Your task to perform on an android device: Go to wifi settings Image 0: 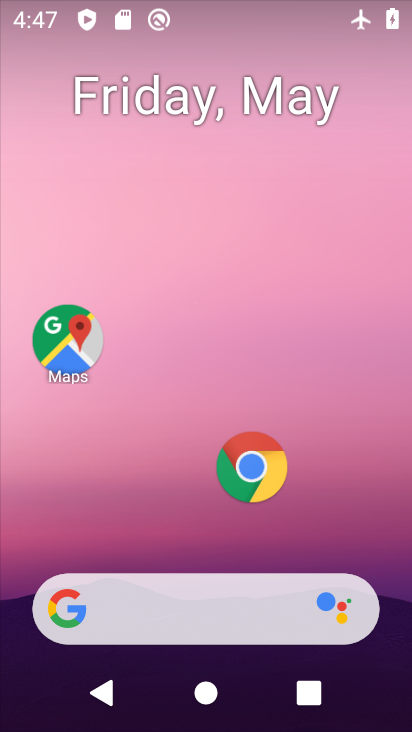
Step 0: drag from (284, 486) to (233, 195)
Your task to perform on an android device: Go to wifi settings Image 1: 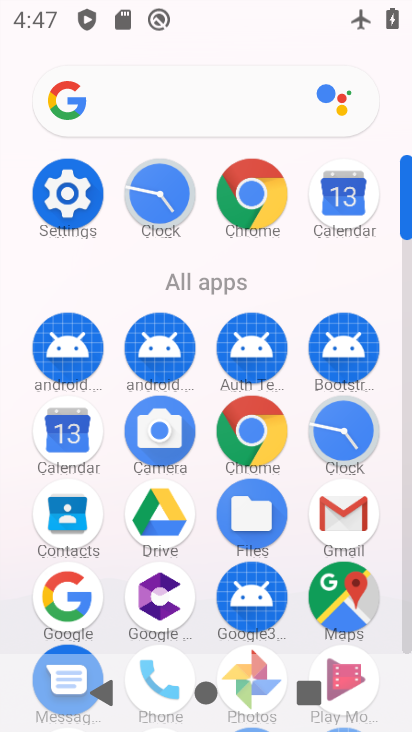
Step 1: click (62, 196)
Your task to perform on an android device: Go to wifi settings Image 2: 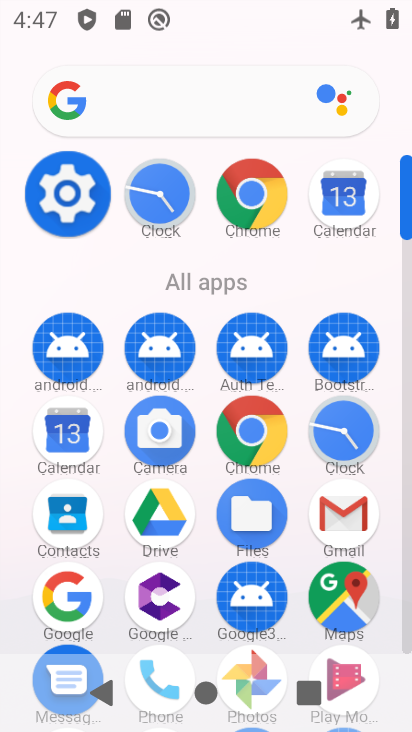
Step 2: click (70, 189)
Your task to perform on an android device: Go to wifi settings Image 3: 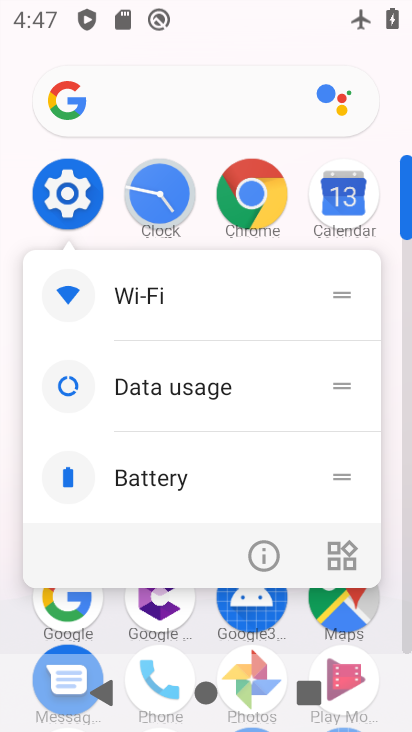
Step 3: click (73, 188)
Your task to perform on an android device: Go to wifi settings Image 4: 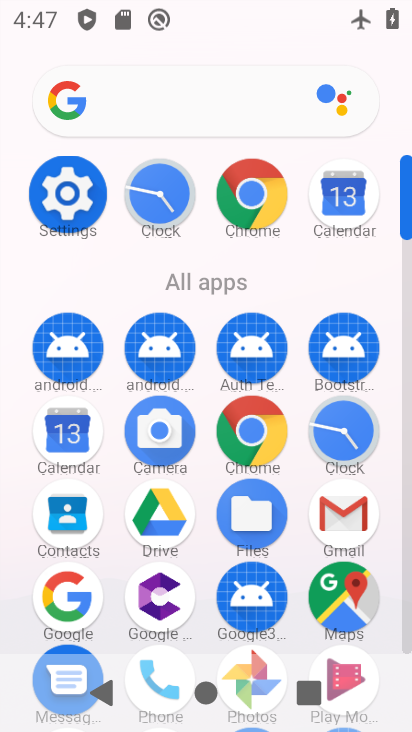
Step 4: click (77, 186)
Your task to perform on an android device: Go to wifi settings Image 5: 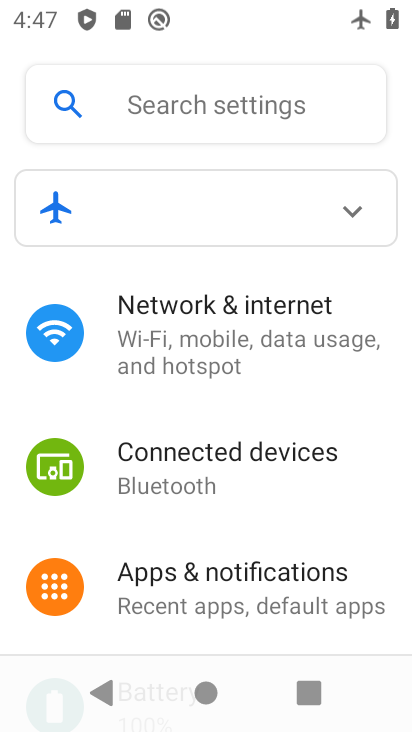
Step 5: click (193, 320)
Your task to perform on an android device: Go to wifi settings Image 6: 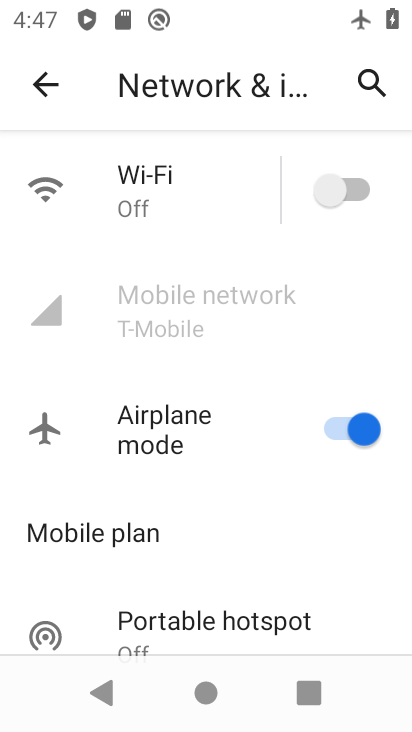
Step 6: task complete